Your task to perform on an android device: check battery use Image 0: 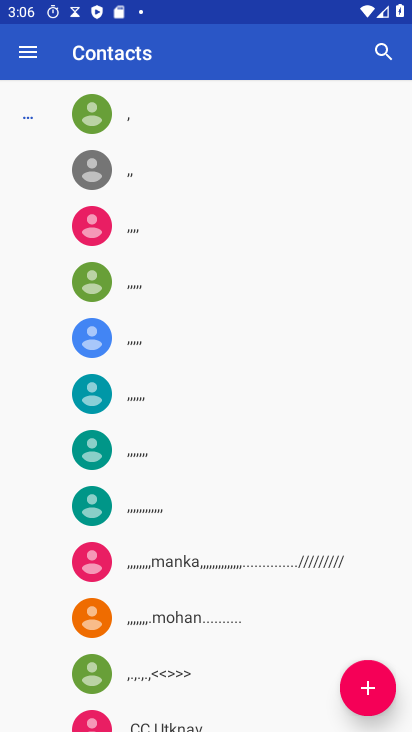
Step 0: press home button
Your task to perform on an android device: check battery use Image 1: 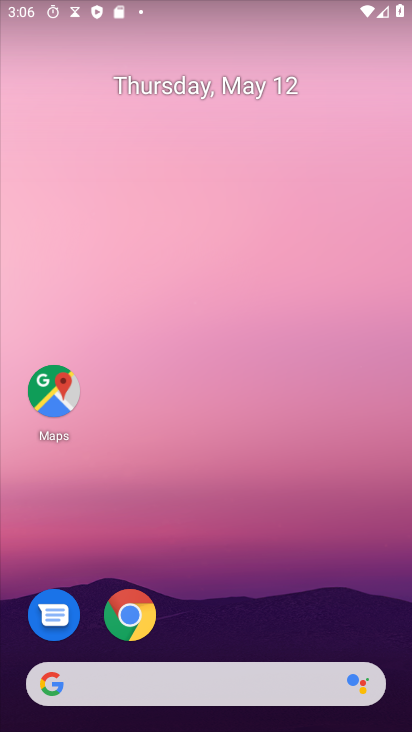
Step 1: drag from (26, 597) to (292, 218)
Your task to perform on an android device: check battery use Image 2: 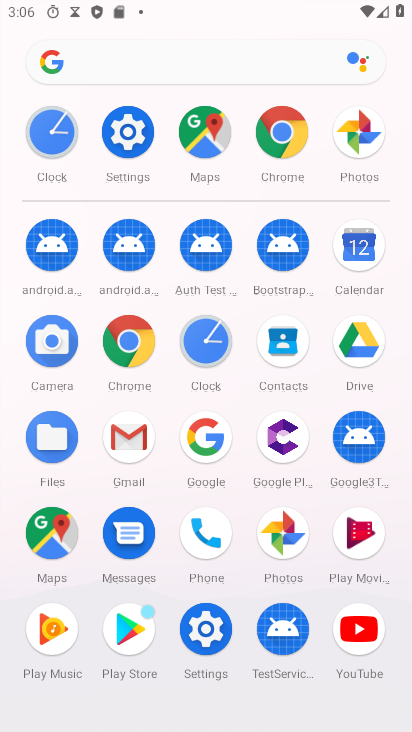
Step 2: click (123, 130)
Your task to perform on an android device: check battery use Image 3: 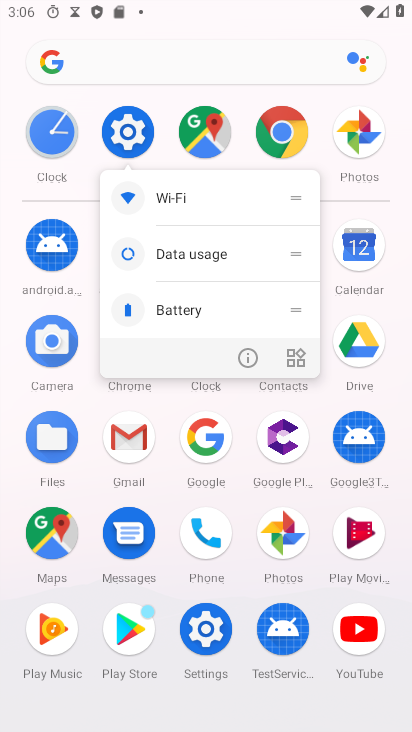
Step 3: click (176, 312)
Your task to perform on an android device: check battery use Image 4: 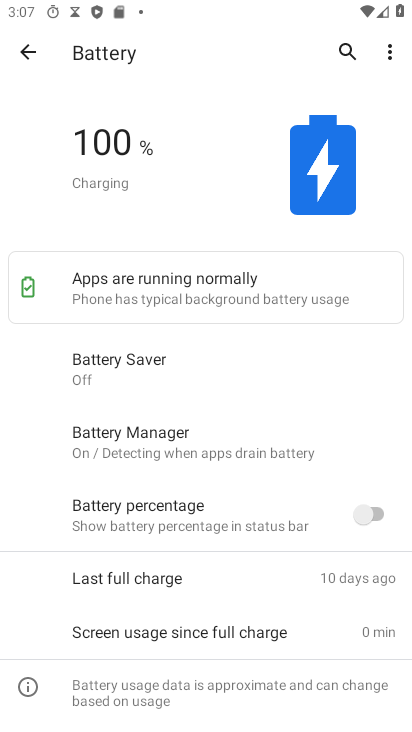
Step 4: task complete